Your task to perform on an android device: turn pop-ups on in chrome Image 0: 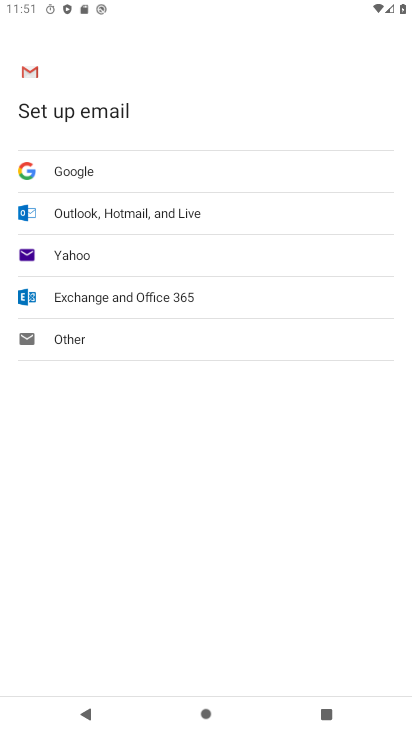
Step 0: press back button
Your task to perform on an android device: turn pop-ups on in chrome Image 1: 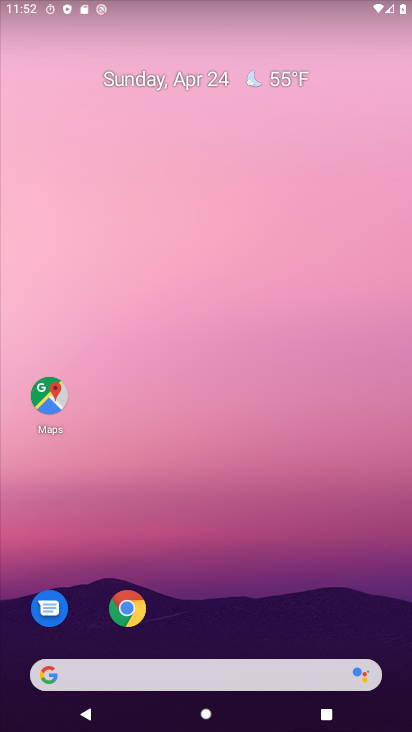
Step 1: click (112, 606)
Your task to perform on an android device: turn pop-ups on in chrome Image 2: 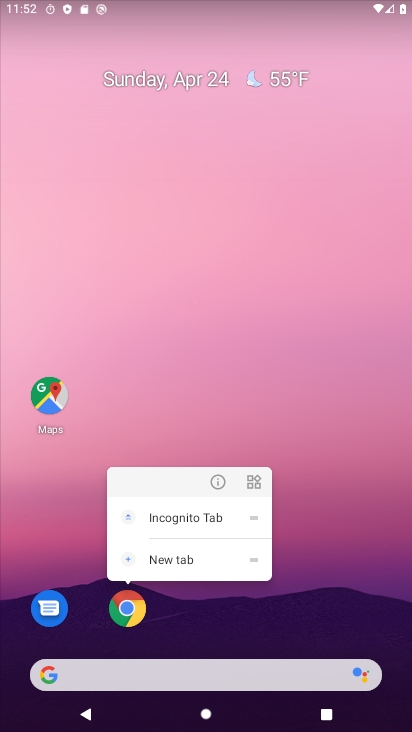
Step 2: click (142, 608)
Your task to perform on an android device: turn pop-ups on in chrome Image 3: 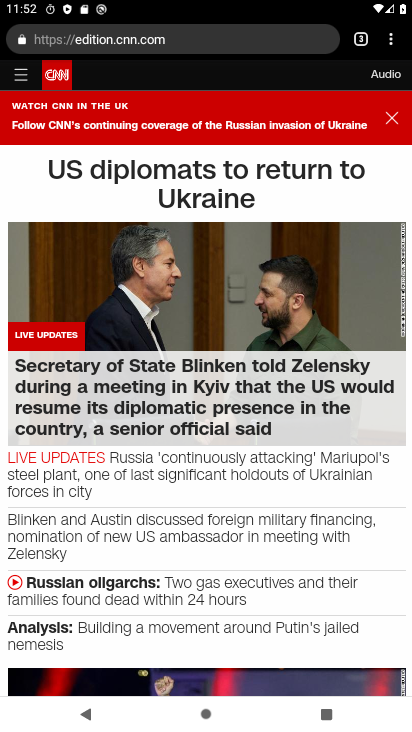
Step 3: click (391, 39)
Your task to perform on an android device: turn pop-ups on in chrome Image 4: 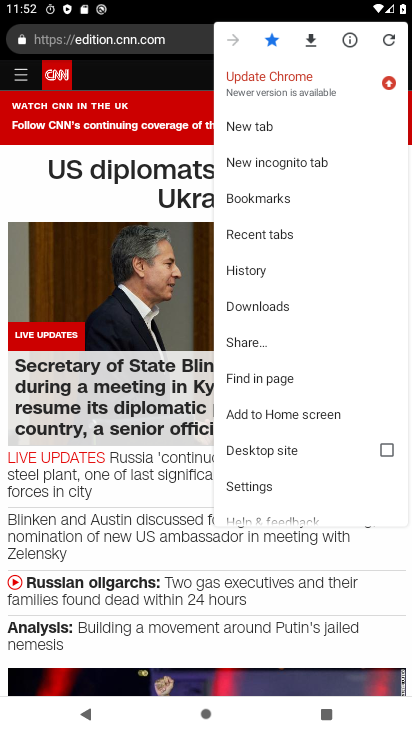
Step 4: click (258, 481)
Your task to perform on an android device: turn pop-ups on in chrome Image 5: 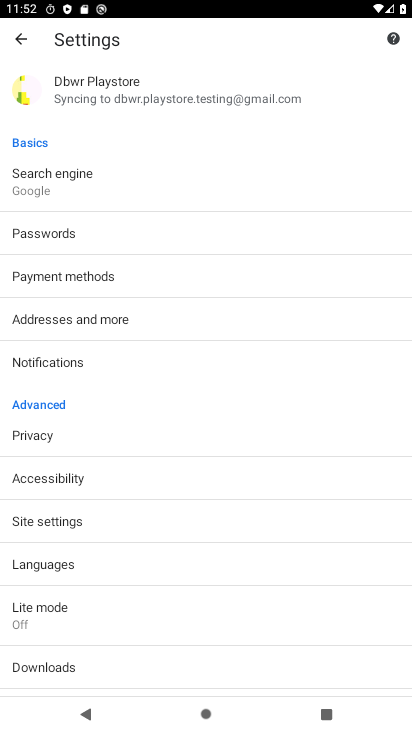
Step 5: click (42, 521)
Your task to perform on an android device: turn pop-ups on in chrome Image 6: 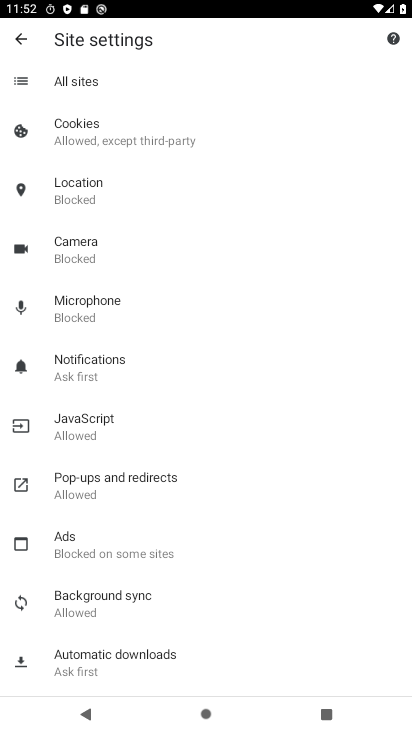
Step 6: click (113, 475)
Your task to perform on an android device: turn pop-ups on in chrome Image 7: 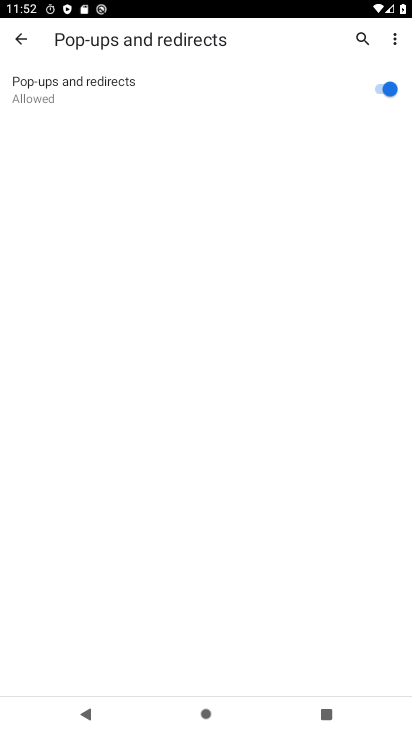
Step 7: task complete